Your task to perform on an android device: turn off airplane mode Image 0: 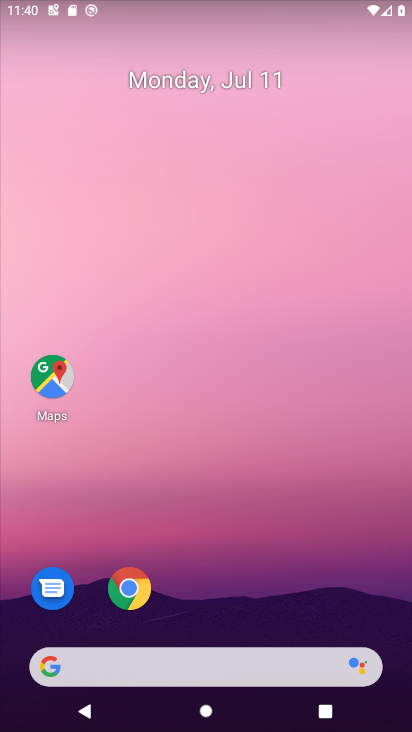
Step 0: drag from (273, 696) to (266, 199)
Your task to perform on an android device: turn off airplane mode Image 1: 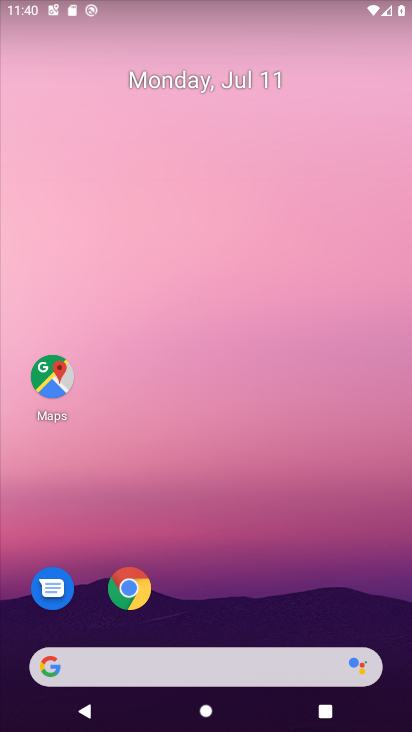
Step 1: drag from (213, 689) to (117, 162)
Your task to perform on an android device: turn off airplane mode Image 2: 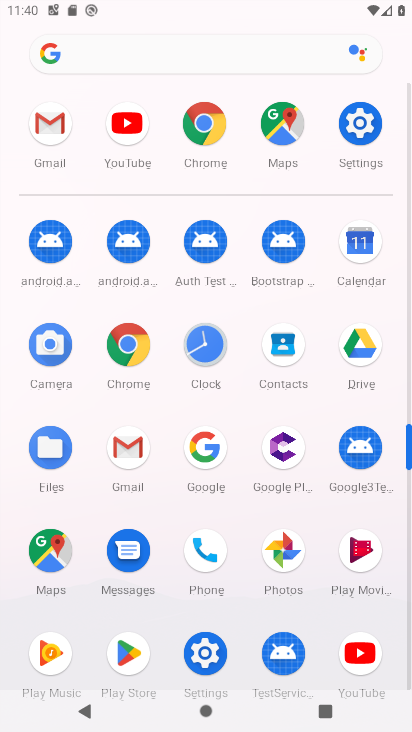
Step 2: drag from (230, 562) to (264, 145)
Your task to perform on an android device: turn off airplane mode Image 3: 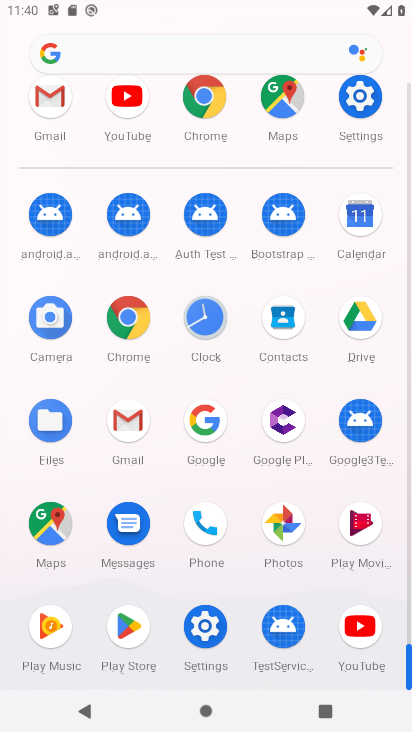
Step 3: click (357, 108)
Your task to perform on an android device: turn off airplane mode Image 4: 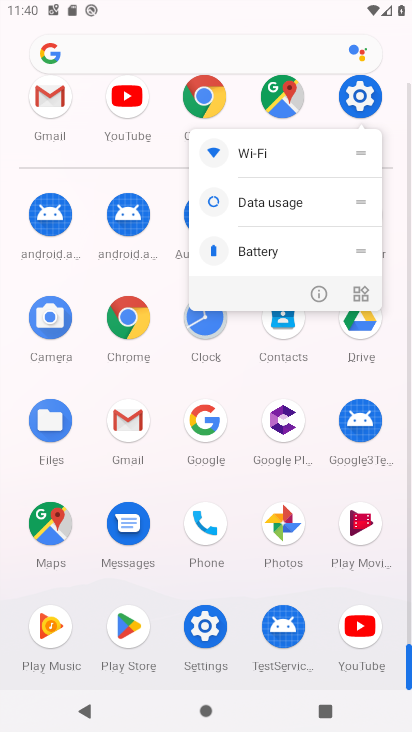
Step 4: click (285, 146)
Your task to perform on an android device: turn off airplane mode Image 5: 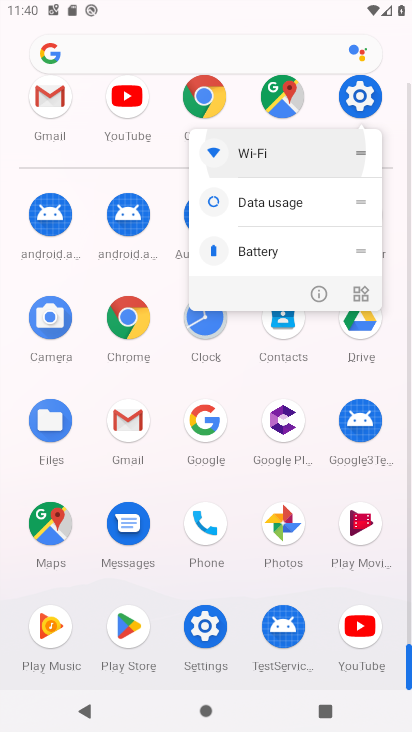
Step 5: click (285, 146)
Your task to perform on an android device: turn off airplane mode Image 6: 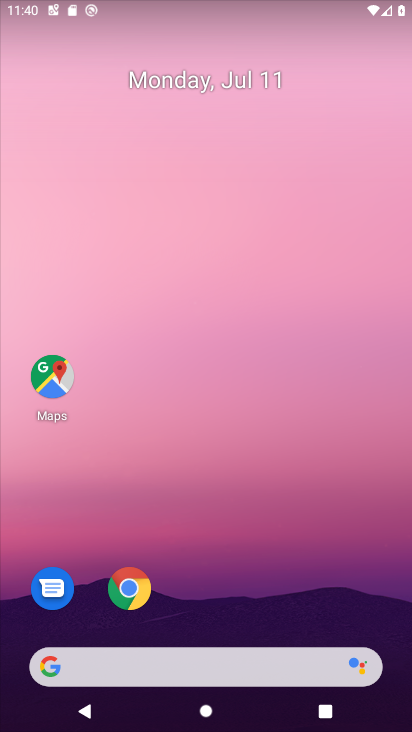
Step 6: drag from (228, 705) to (193, 103)
Your task to perform on an android device: turn off airplane mode Image 7: 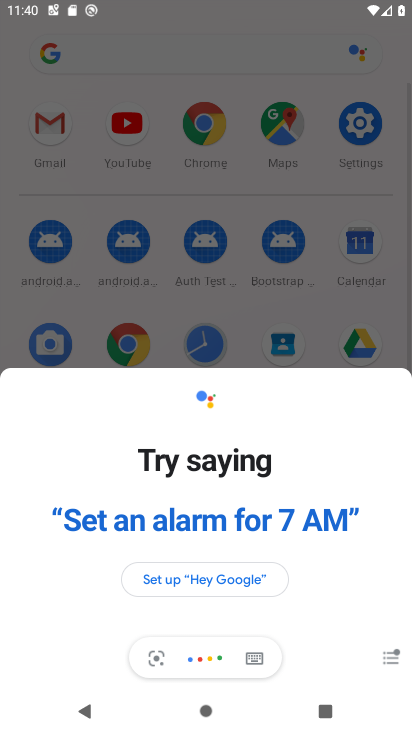
Step 7: click (353, 140)
Your task to perform on an android device: turn off airplane mode Image 8: 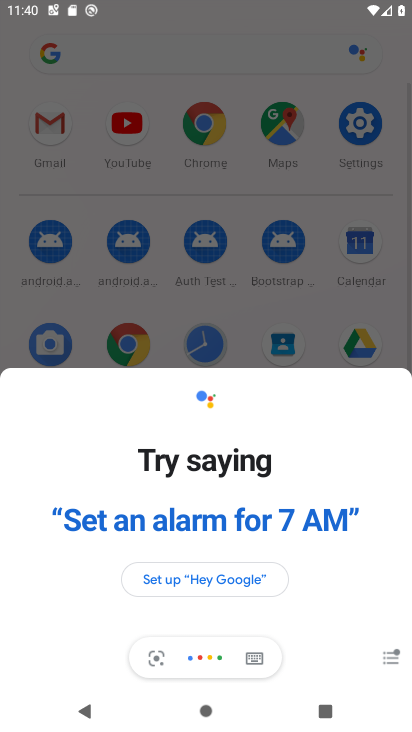
Step 8: click (355, 145)
Your task to perform on an android device: turn off airplane mode Image 9: 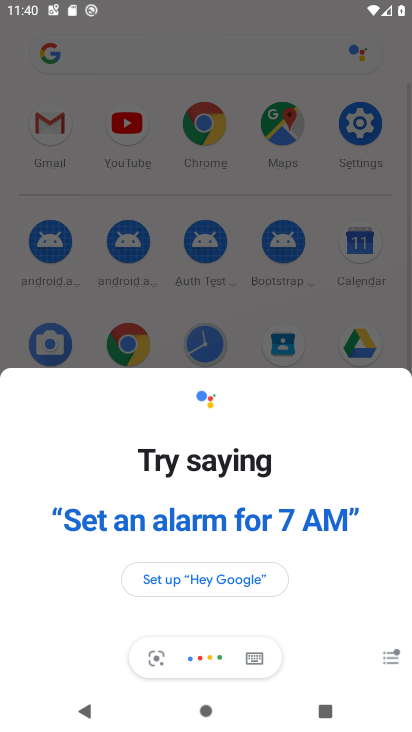
Step 9: click (355, 148)
Your task to perform on an android device: turn off airplane mode Image 10: 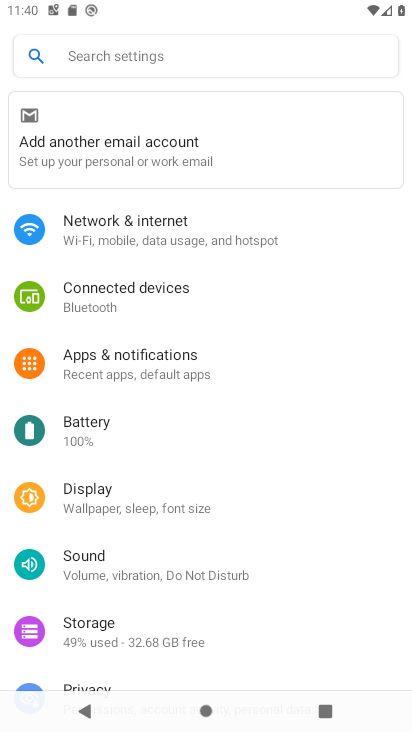
Step 10: click (359, 139)
Your task to perform on an android device: turn off airplane mode Image 11: 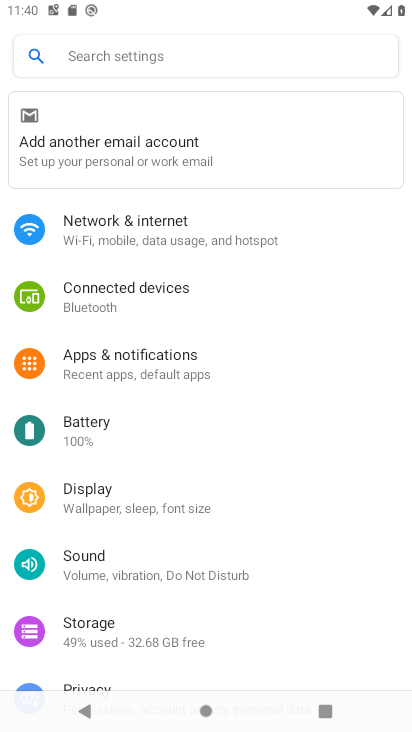
Step 11: click (118, 231)
Your task to perform on an android device: turn off airplane mode Image 12: 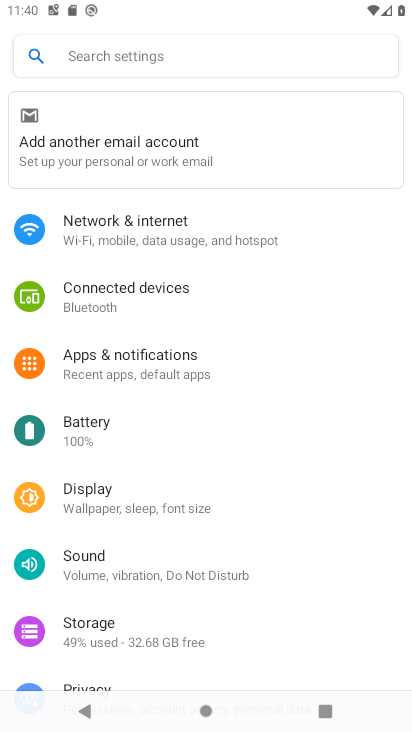
Step 12: click (120, 229)
Your task to perform on an android device: turn off airplane mode Image 13: 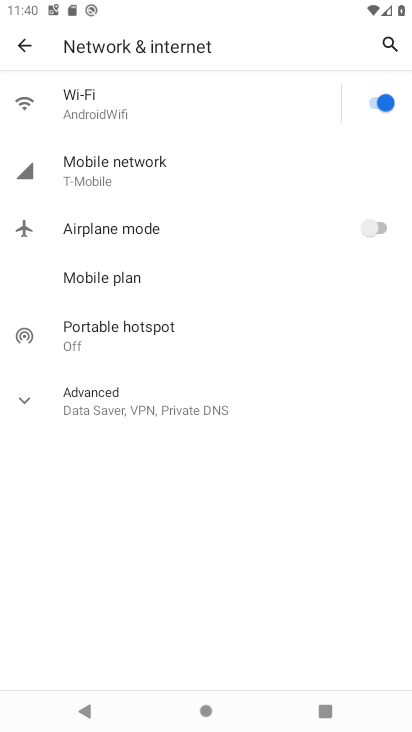
Step 13: task complete